Your task to perform on an android device: What's on my calendar today? Image 0: 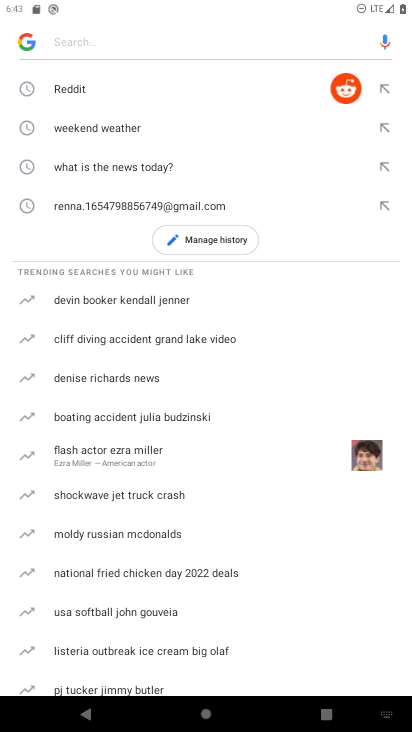
Step 0: press home button
Your task to perform on an android device: What's on my calendar today? Image 1: 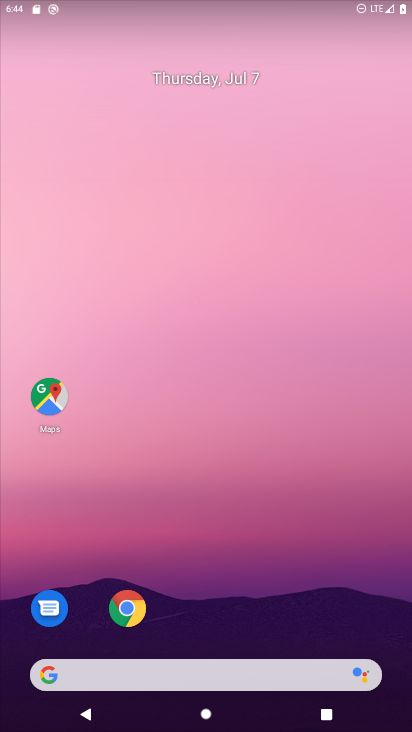
Step 1: drag from (369, 622) to (319, 369)
Your task to perform on an android device: What's on my calendar today? Image 2: 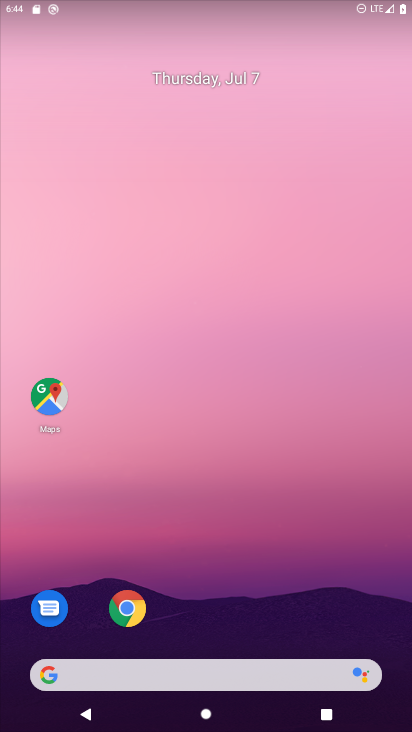
Step 2: drag from (316, 620) to (257, 288)
Your task to perform on an android device: What's on my calendar today? Image 3: 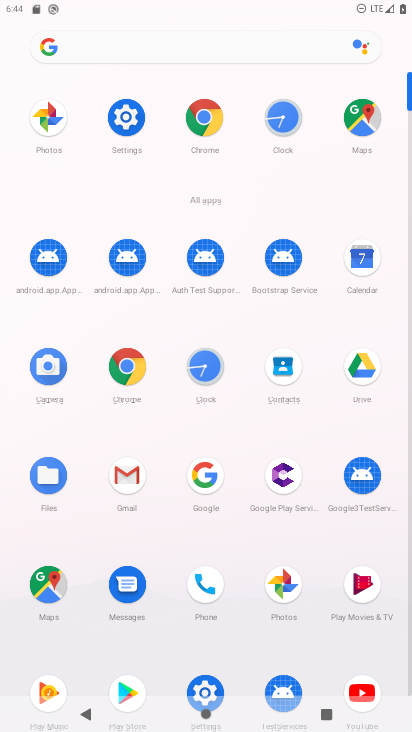
Step 3: click (351, 258)
Your task to perform on an android device: What's on my calendar today? Image 4: 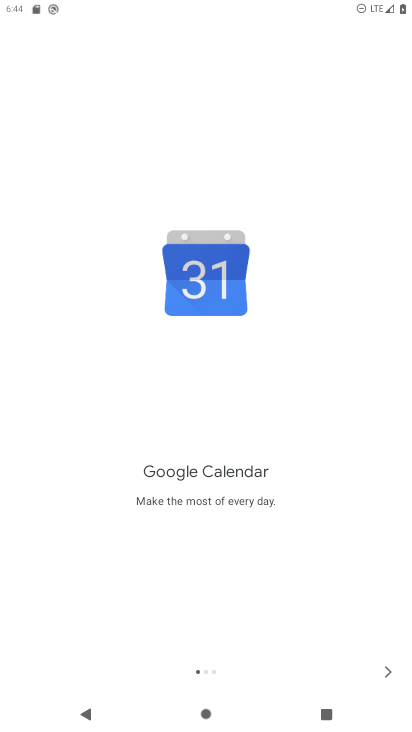
Step 4: click (399, 672)
Your task to perform on an android device: What's on my calendar today? Image 5: 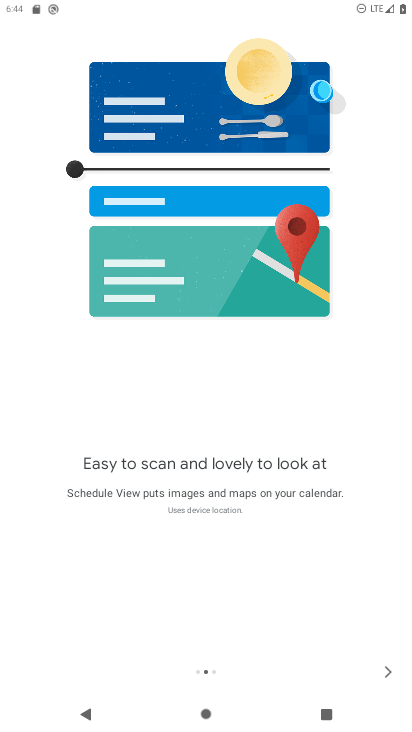
Step 5: click (391, 675)
Your task to perform on an android device: What's on my calendar today? Image 6: 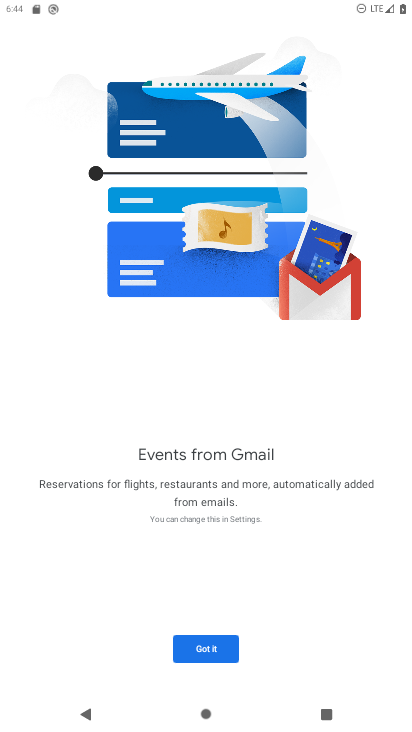
Step 6: click (386, 675)
Your task to perform on an android device: What's on my calendar today? Image 7: 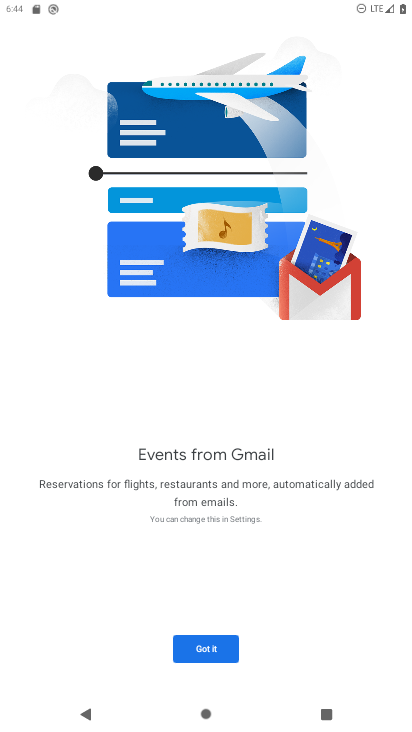
Step 7: click (219, 643)
Your task to perform on an android device: What's on my calendar today? Image 8: 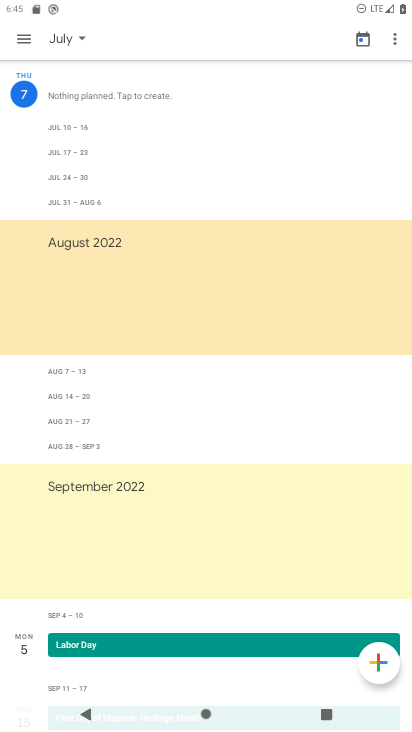
Step 8: click (74, 37)
Your task to perform on an android device: What's on my calendar today? Image 9: 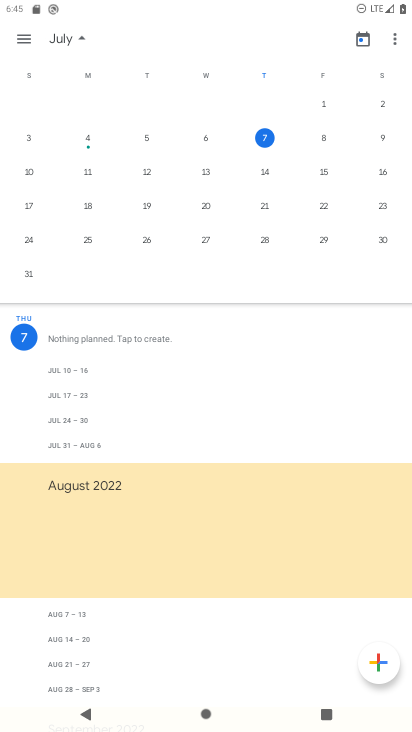
Step 9: click (260, 140)
Your task to perform on an android device: What's on my calendar today? Image 10: 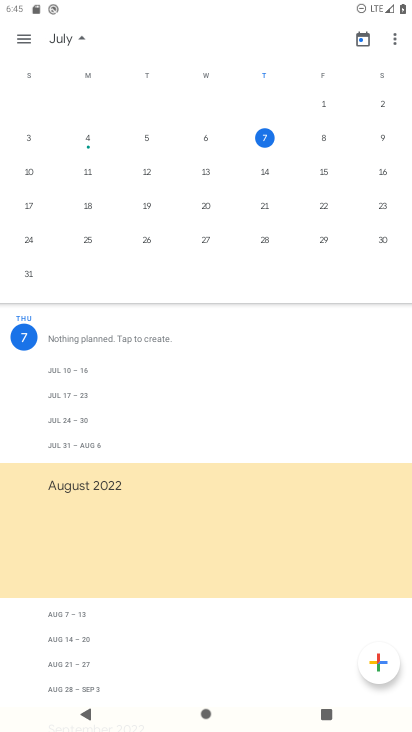
Step 10: task complete